Your task to perform on an android device: Do I have any events this weekend? Image 0: 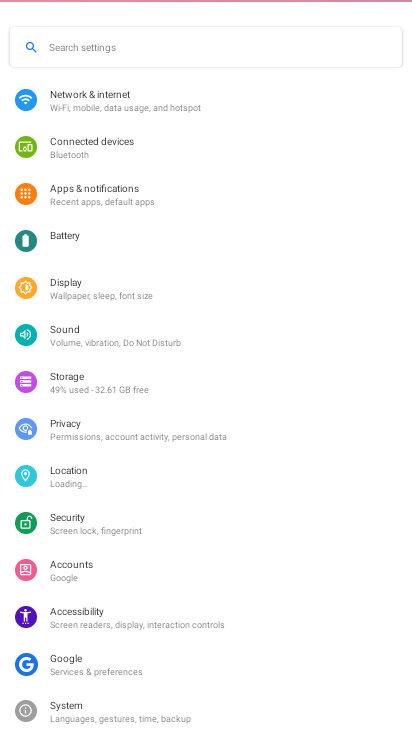
Step 0: click (254, 176)
Your task to perform on an android device: Do I have any events this weekend? Image 1: 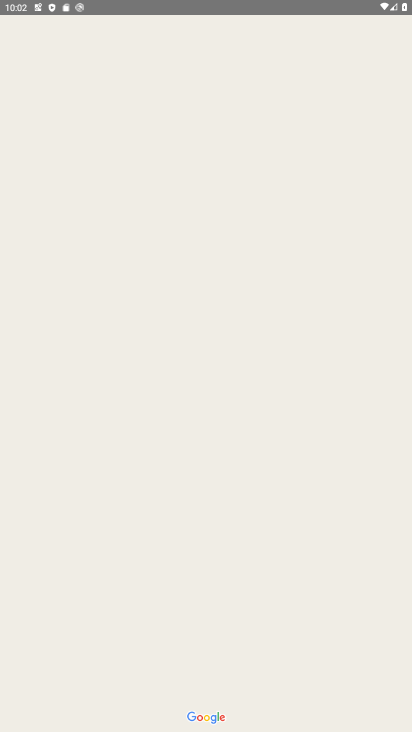
Step 1: press home button
Your task to perform on an android device: Do I have any events this weekend? Image 2: 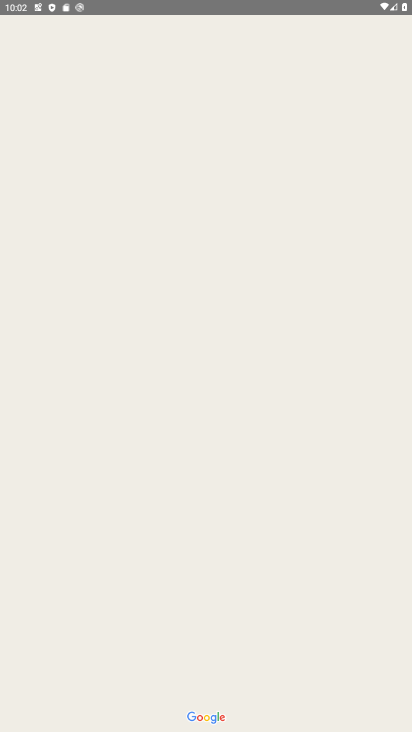
Step 2: drag from (187, 668) to (249, 125)
Your task to perform on an android device: Do I have any events this weekend? Image 3: 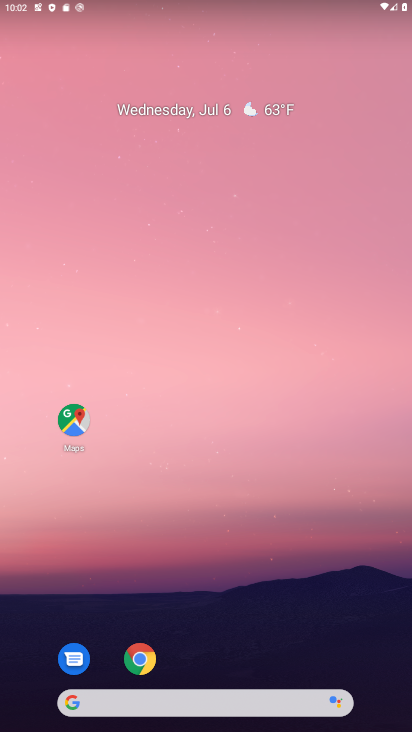
Step 3: drag from (167, 670) to (259, 84)
Your task to perform on an android device: Do I have any events this weekend? Image 4: 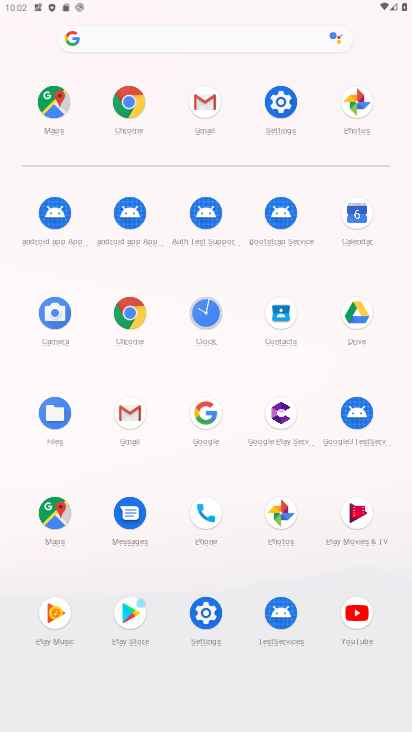
Step 4: click (353, 208)
Your task to perform on an android device: Do I have any events this weekend? Image 5: 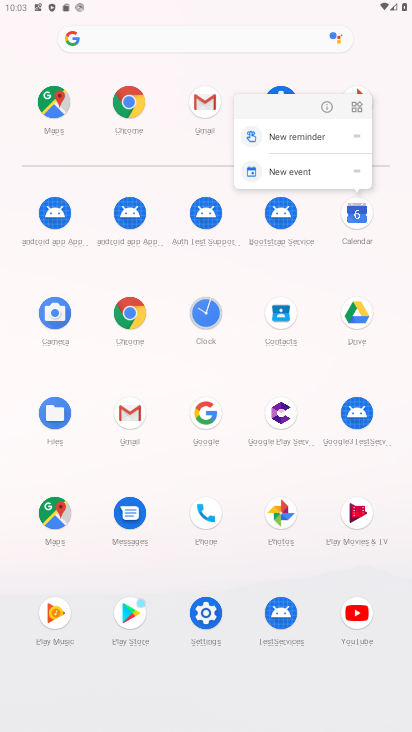
Step 5: click (313, 110)
Your task to perform on an android device: Do I have any events this weekend? Image 6: 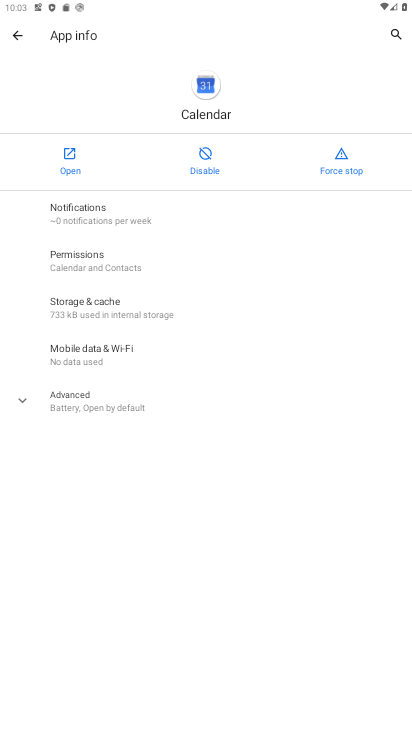
Step 6: click (73, 162)
Your task to perform on an android device: Do I have any events this weekend? Image 7: 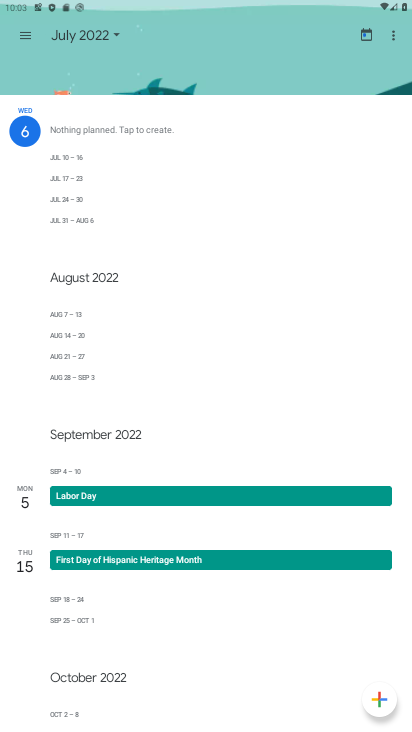
Step 7: click (98, 37)
Your task to perform on an android device: Do I have any events this weekend? Image 8: 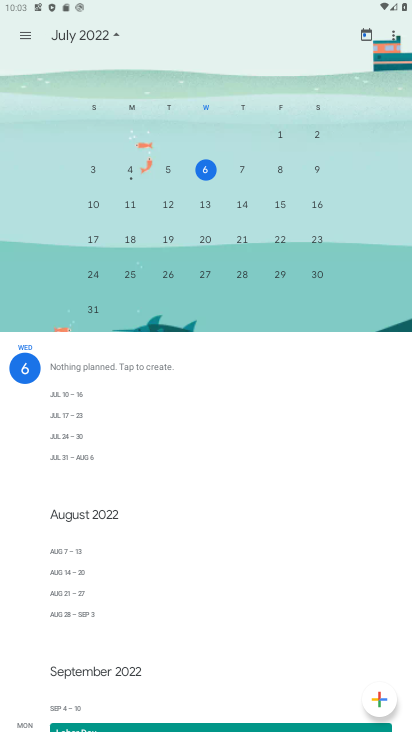
Step 8: task complete